Your task to perform on an android device: Go to battery settings Image 0: 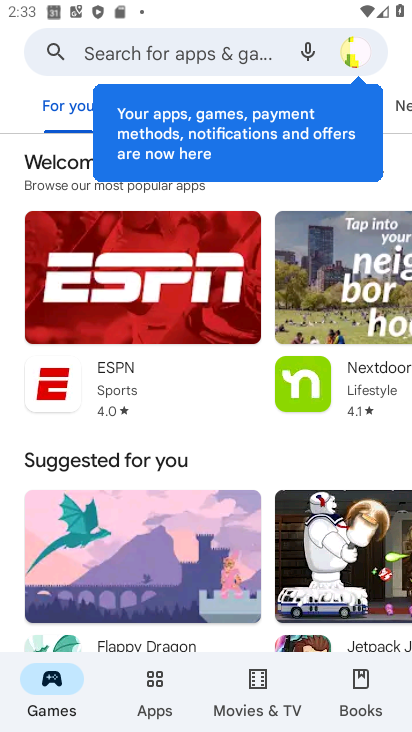
Step 0: press home button
Your task to perform on an android device: Go to battery settings Image 1: 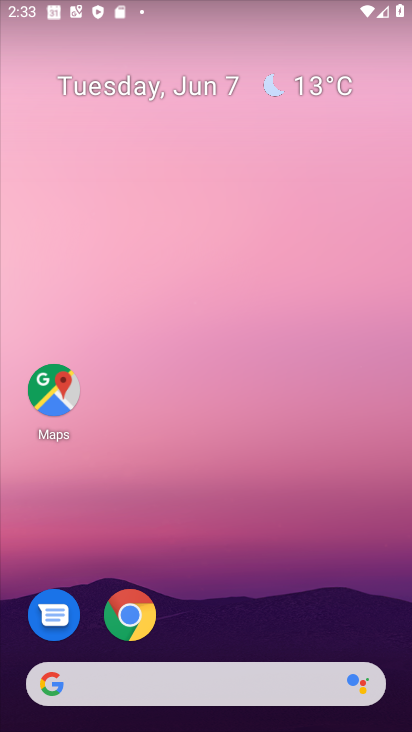
Step 1: drag from (203, 648) to (250, 331)
Your task to perform on an android device: Go to battery settings Image 2: 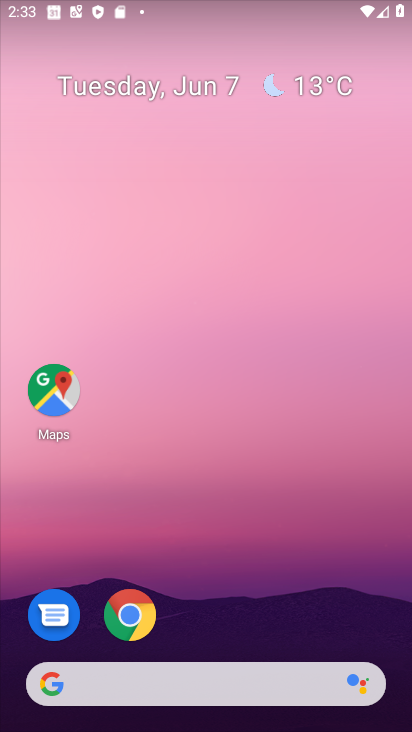
Step 2: drag from (175, 640) to (281, 282)
Your task to perform on an android device: Go to battery settings Image 3: 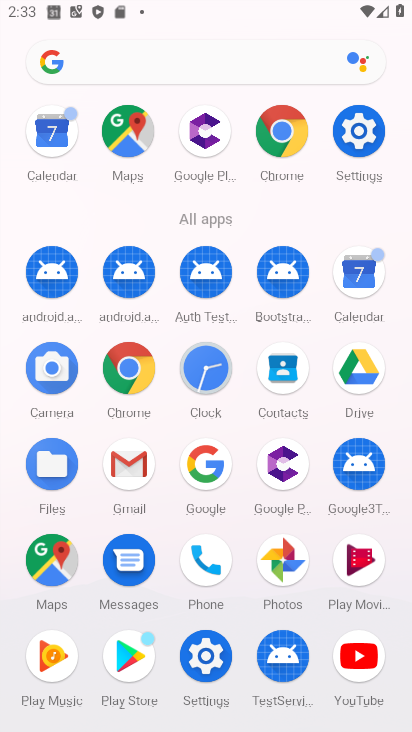
Step 3: click (206, 665)
Your task to perform on an android device: Go to battery settings Image 4: 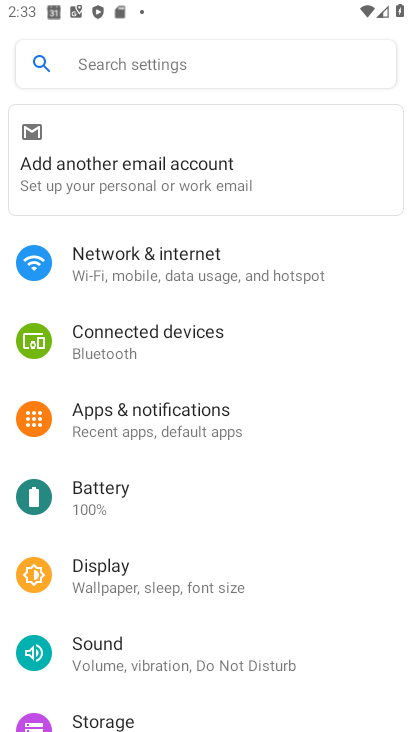
Step 4: click (163, 495)
Your task to perform on an android device: Go to battery settings Image 5: 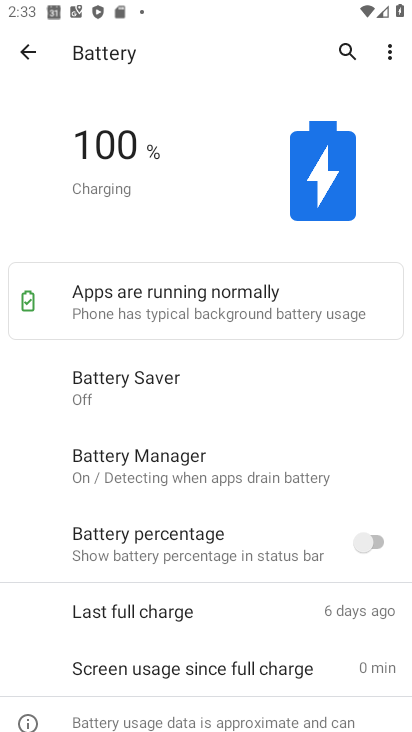
Step 5: task complete